Your task to perform on an android device: Do I have any events today? Image 0: 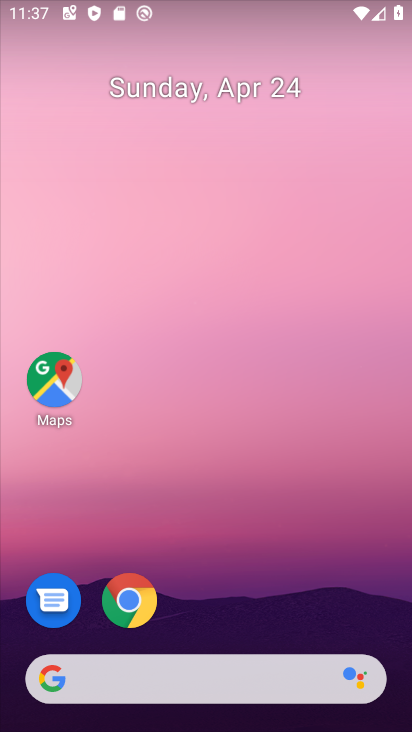
Step 0: drag from (218, 634) to (206, 118)
Your task to perform on an android device: Do I have any events today? Image 1: 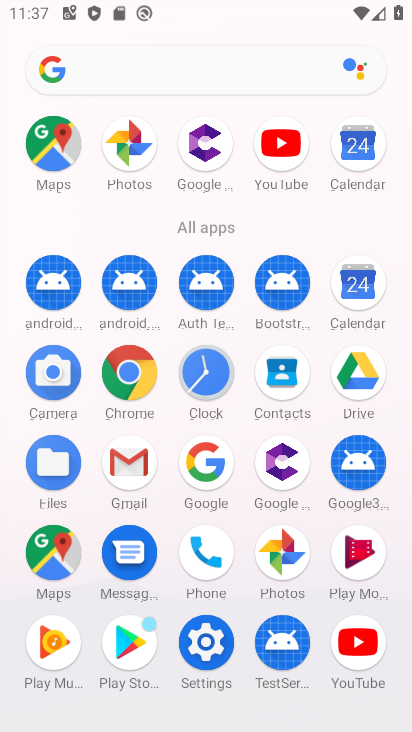
Step 1: click (362, 291)
Your task to perform on an android device: Do I have any events today? Image 2: 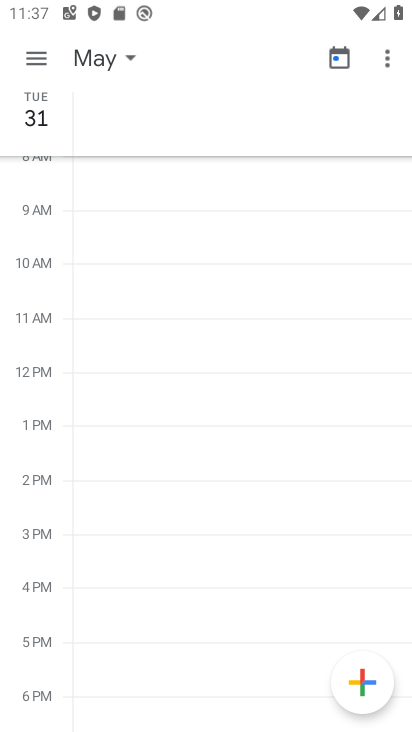
Step 2: click (118, 59)
Your task to perform on an android device: Do I have any events today? Image 3: 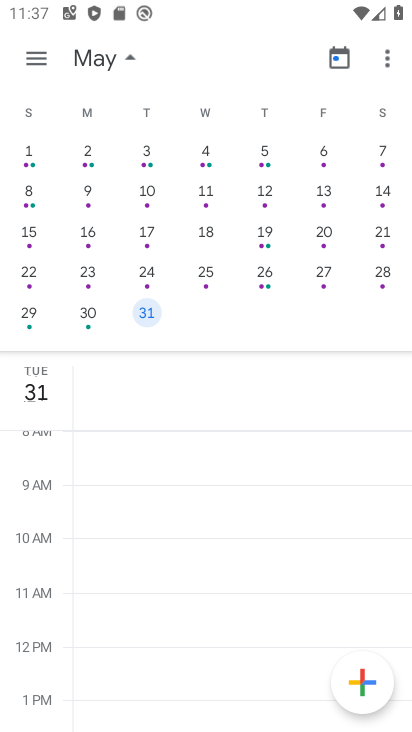
Step 3: drag from (53, 230) to (390, 280)
Your task to perform on an android device: Do I have any events today? Image 4: 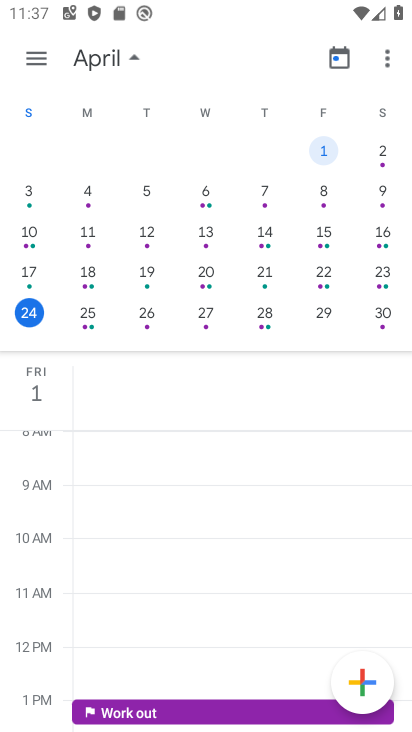
Step 4: click (87, 318)
Your task to perform on an android device: Do I have any events today? Image 5: 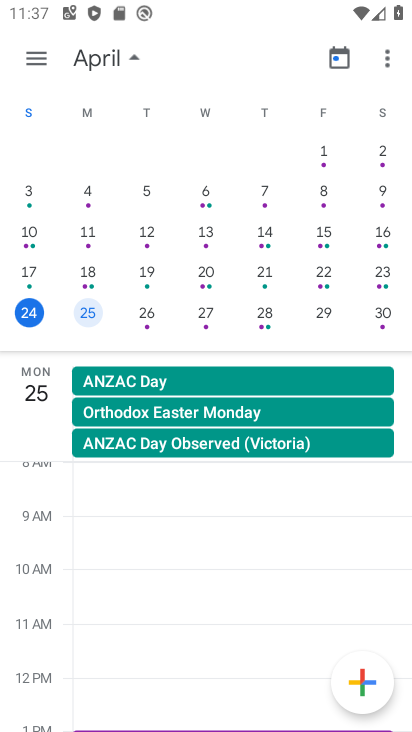
Step 5: task complete